Your task to perform on an android device: Go to CNN.com Image 0: 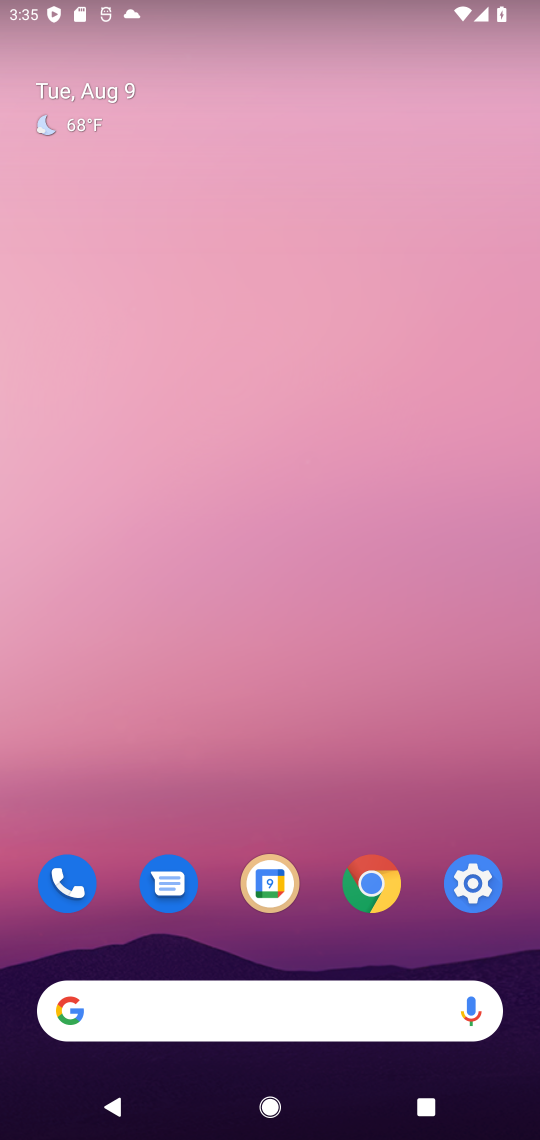
Step 0: drag from (381, 1030) to (292, 492)
Your task to perform on an android device: Go to CNN.com Image 1: 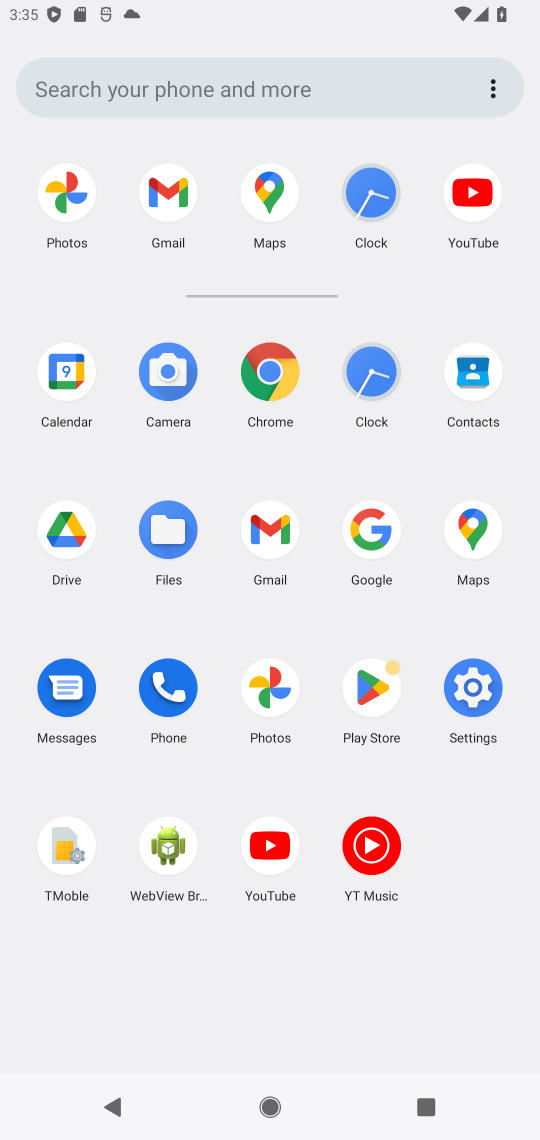
Step 1: click (267, 388)
Your task to perform on an android device: Go to CNN.com Image 2: 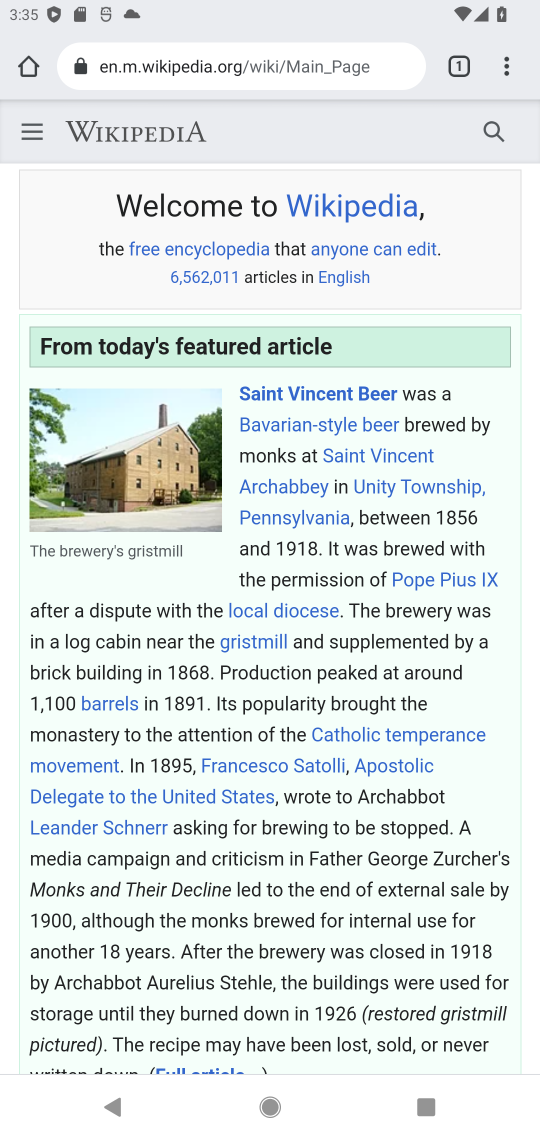
Step 2: click (226, 56)
Your task to perform on an android device: Go to CNN.com Image 3: 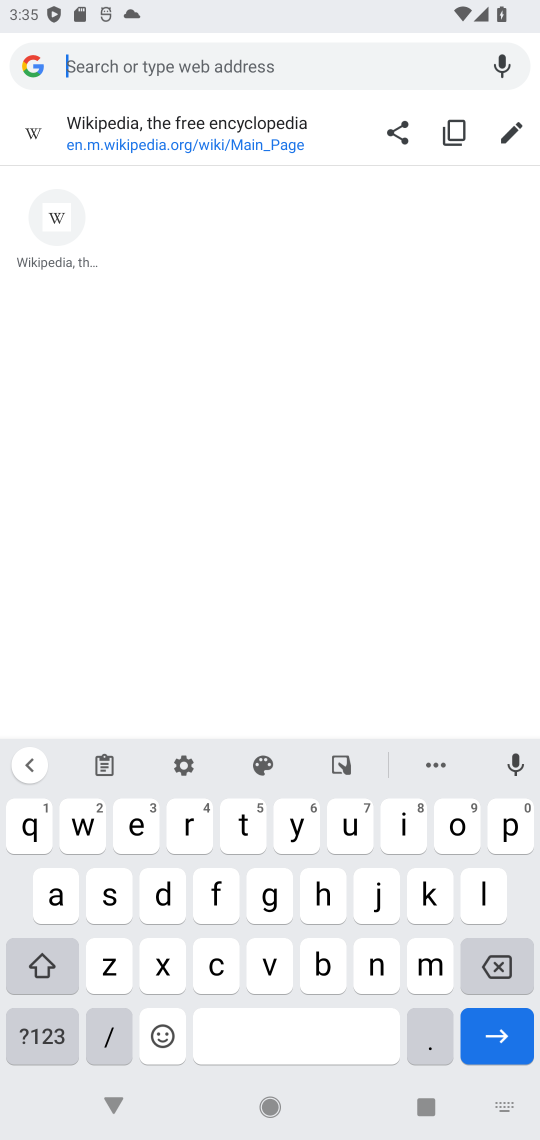
Step 3: click (206, 969)
Your task to perform on an android device: Go to CNN.com Image 4: 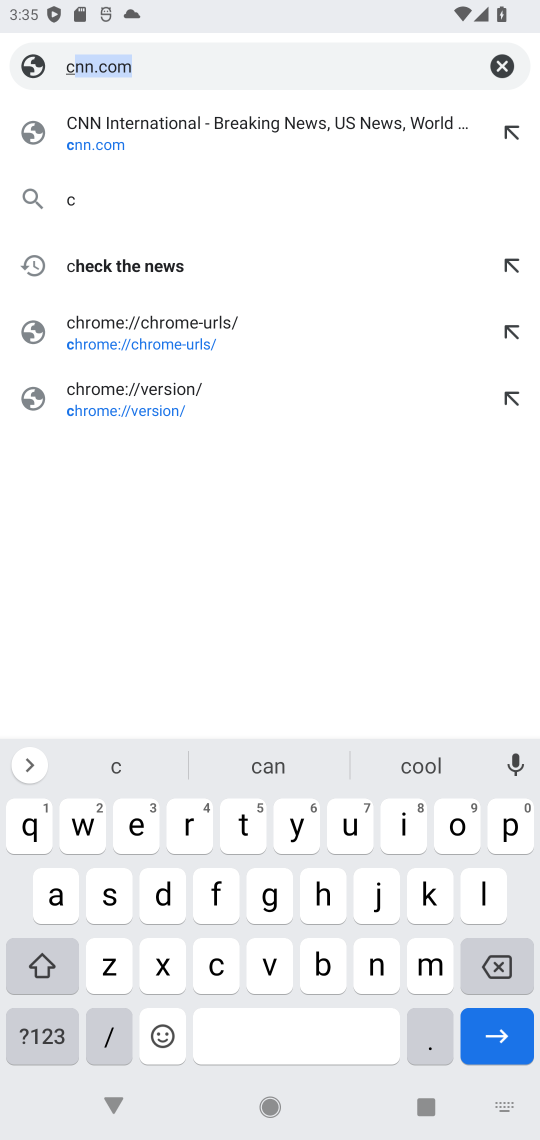
Step 4: click (222, 56)
Your task to perform on an android device: Go to CNN.com Image 5: 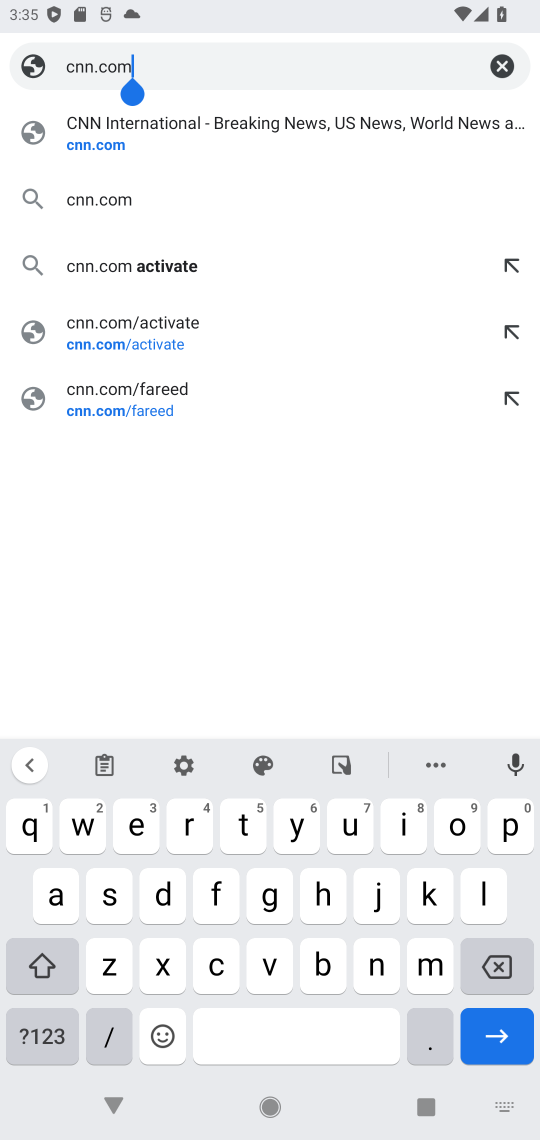
Step 5: click (494, 1034)
Your task to perform on an android device: Go to CNN.com Image 6: 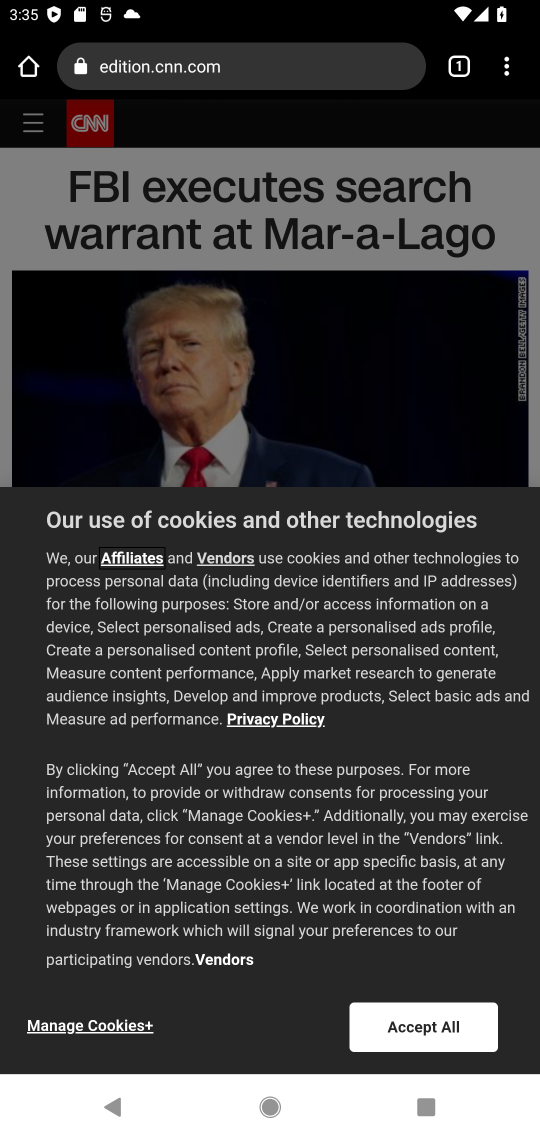
Step 6: click (419, 1030)
Your task to perform on an android device: Go to CNN.com Image 7: 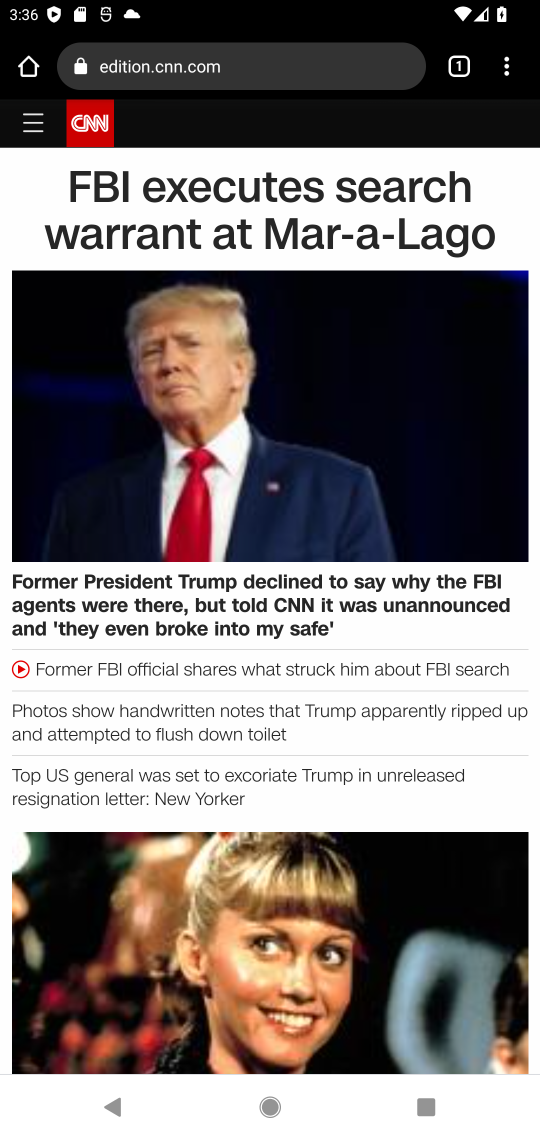
Step 7: task complete